Your task to perform on an android device: Go to Yahoo.com Image 0: 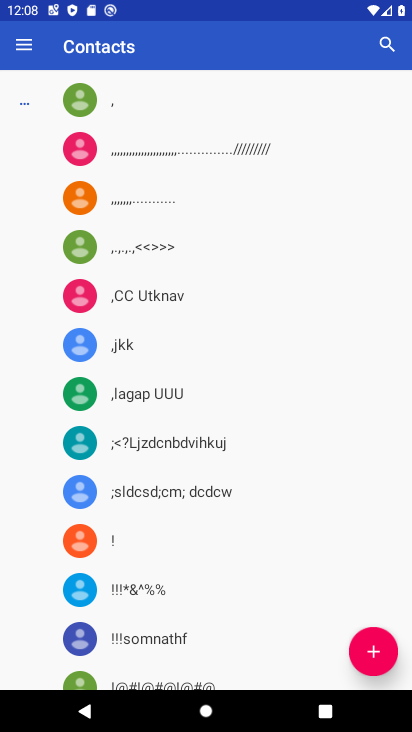
Step 0: press home button
Your task to perform on an android device: Go to Yahoo.com Image 1: 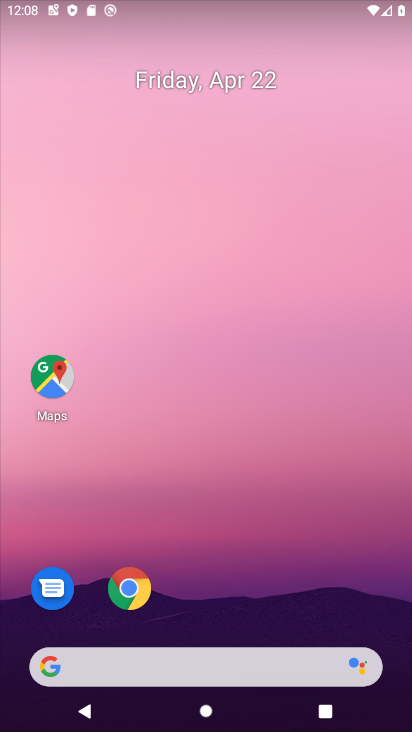
Step 1: drag from (298, 543) to (317, 67)
Your task to perform on an android device: Go to Yahoo.com Image 2: 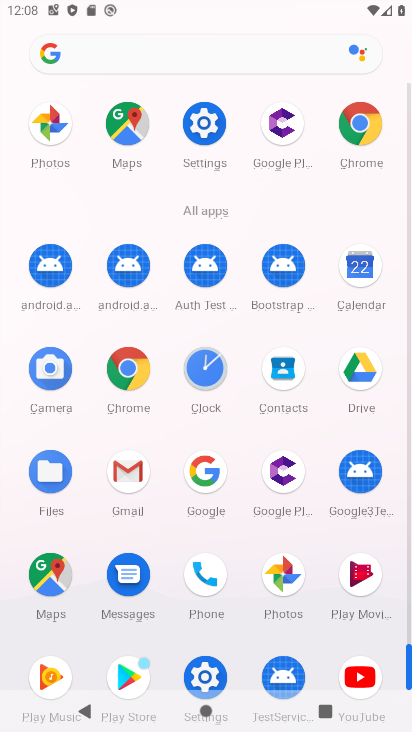
Step 2: click (366, 124)
Your task to perform on an android device: Go to Yahoo.com Image 3: 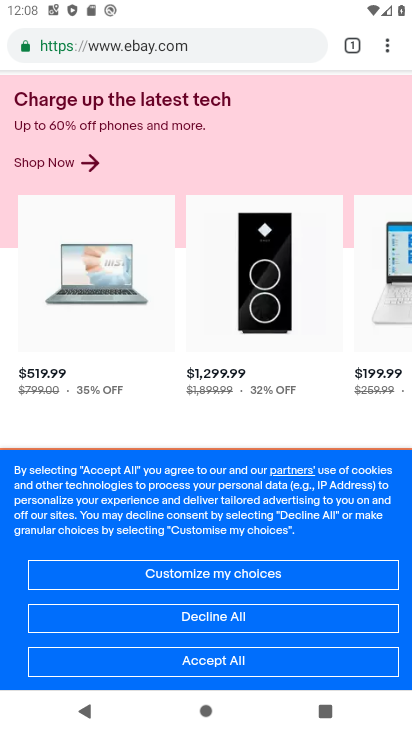
Step 3: click (283, 49)
Your task to perform on an android device: Go to Yahoo.com Image 4: 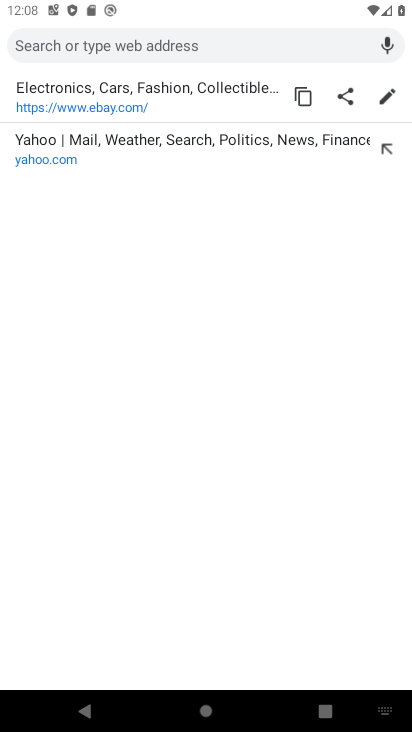
Step 4: type "Yahoo.com"
Your task to perform on an android device: Go to Yahoo.com Image 5: 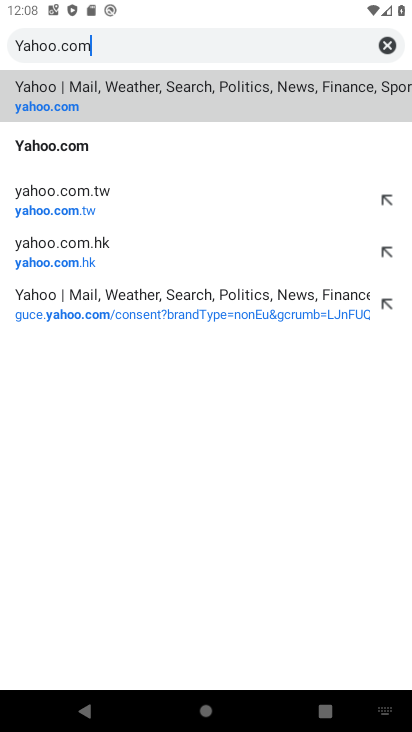
Step 5: click (39, 105)
Your task to perform on an android device: Go to Yahoo.com Image 6: 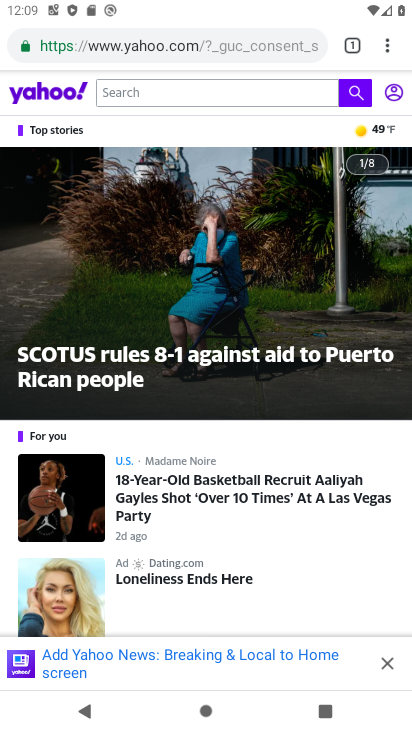
Step 6: task complete